Your task to perform on an android device: Clear the cart on amazon. Search for logitech g pro on amazon, select the first entry, and add it to the cart. Image 0: 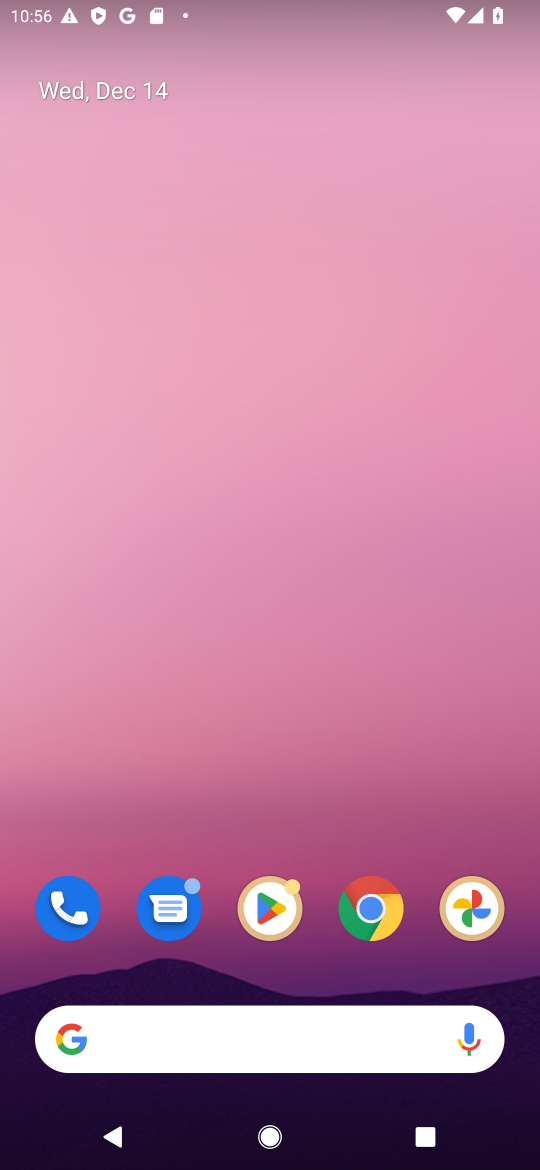
Step 0: click (369, 911)
Your task to perform on an android device: Clear the cart on amazon. Search for logitech g pro on amazon, select the first entry, and add it to the cart. Image 1: 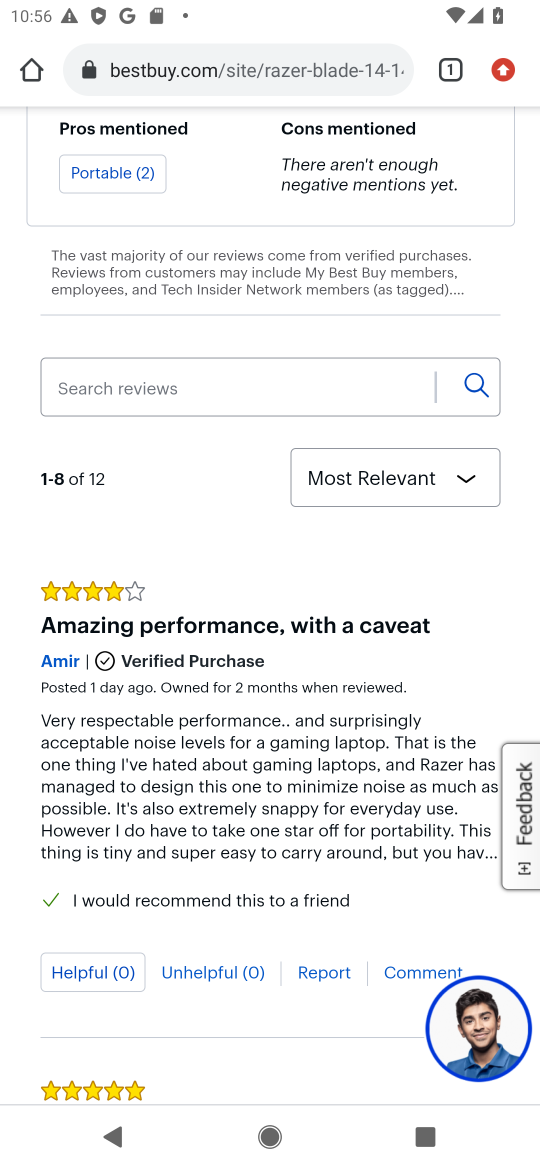
Step 1: click (285, 80)
Your task to perform on an android device: Clear the cart on amazon. Search for logitech g pro on amazon, select the first entry, and add it to the cart. Image 2: 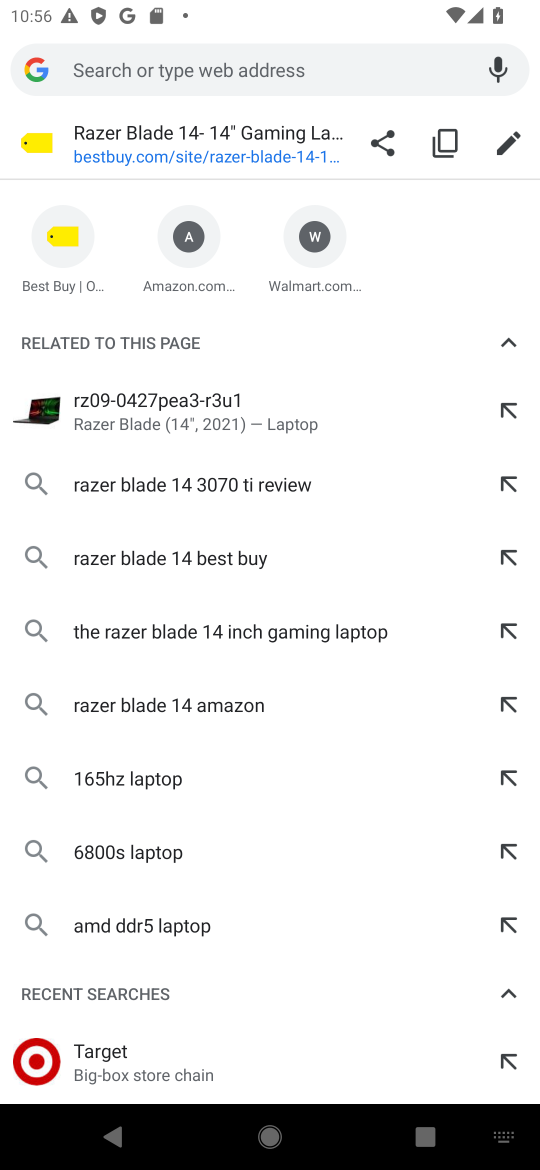
Step 2: type "amazon"
Your task to perform on an android device: Clear the cart on amazon. Search for logitech g pro on amazon, select the first entry, and add it to the cart. Image 3: 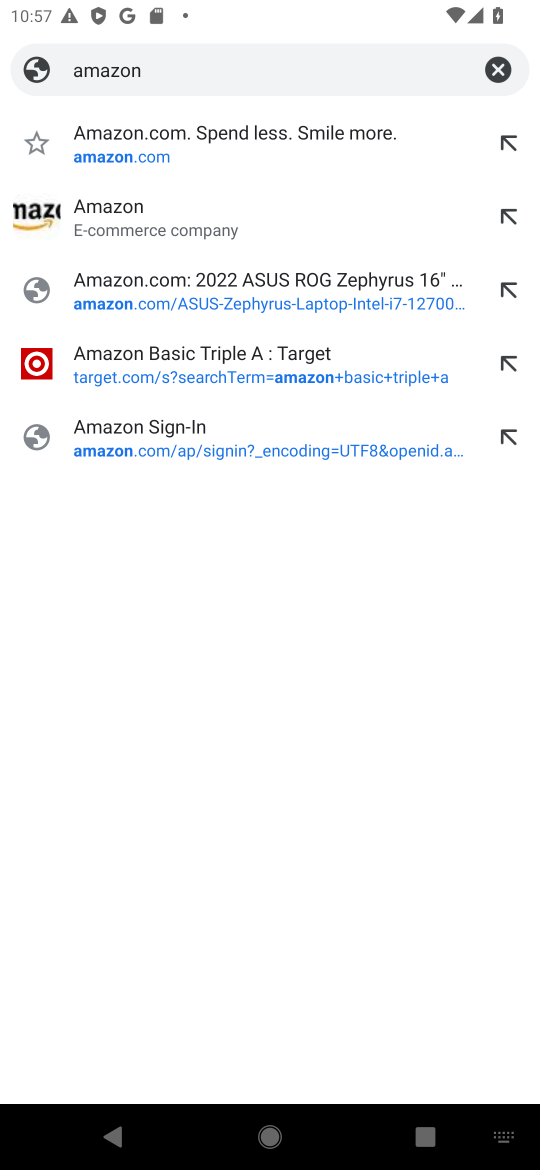
Step 3: click (270, 244)
Your task to perform on an android device: Clear the cart on amazon. Search for logitech g pro on amazon, select the first entry, and add it to the cart. Image 4: 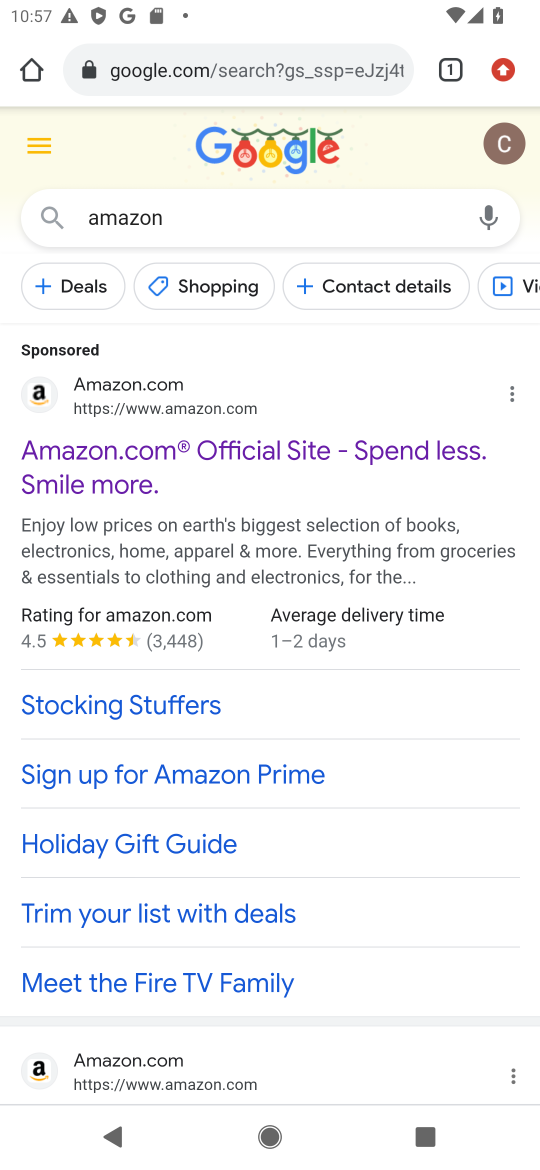
Step 4: click (110, 456)
Your task to perform on an android device: Clear the cart on amazon. Search for logitech g pro on amazon, select the first entry, and add it to the cart. Image 5: 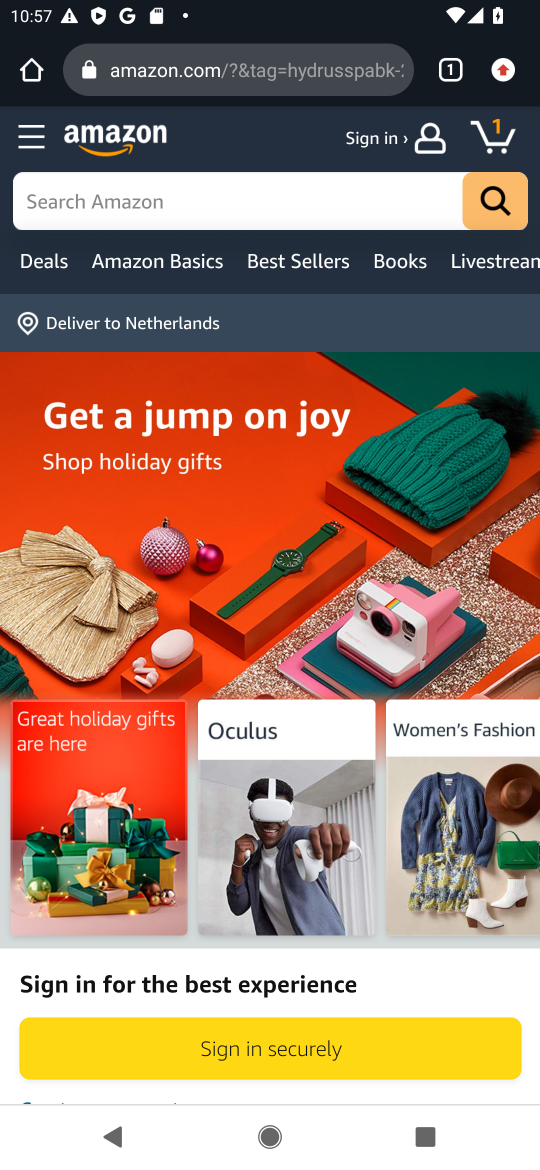
Step 5: click (208, 194)
Your task to perform on an android device: Clear the cart on amazon. Search for logitech g pro on amazon, select the first entry, and add it to the cart. Image 6: 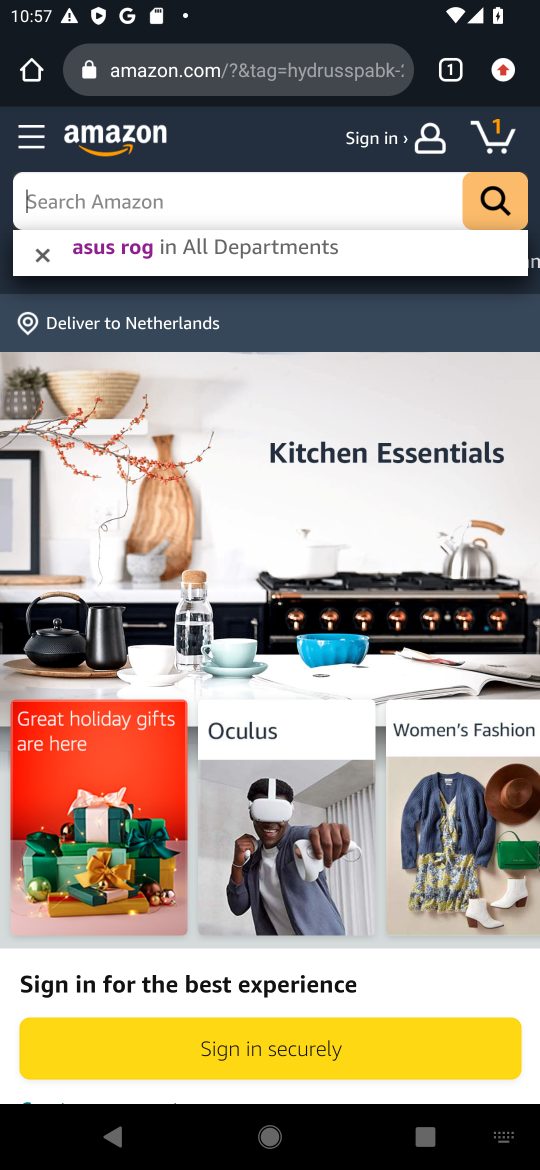
Step 6: type "logitech g pro"
Your task to perform on an android device: Clear the cart on amazon. Search for logitech g pro on amazon, select the first entry, and add it to the cart. Image 7: 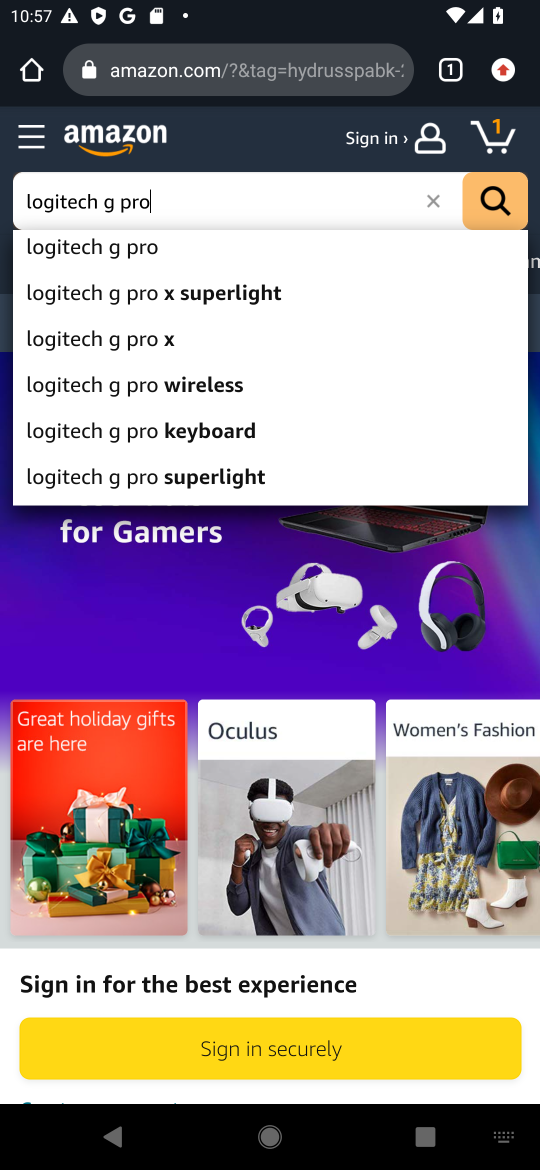
Step 7: click (498, 219)
Your task to perform on an android device: Clear the cart on amazon. Search for logitech g pro on amazon, select the first entry, and add it to the cart. Image 8: 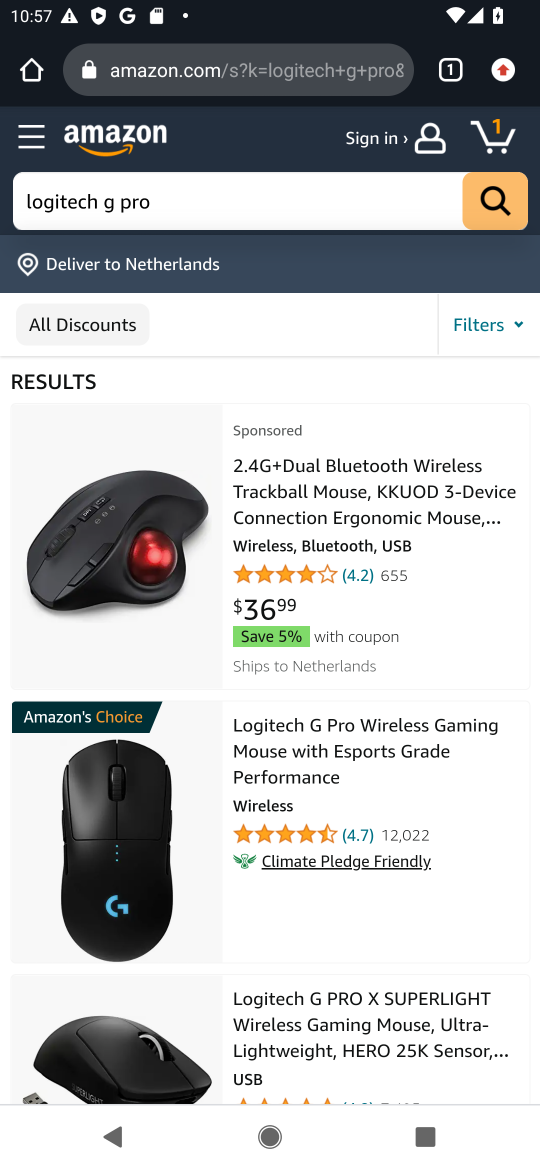
Step 8: click (274, 498)
Your task to perform on an android device: Clear the cart on amazon. Search for logitech g pro on amazon, select the first entry, and add it to the cart. Image 9: 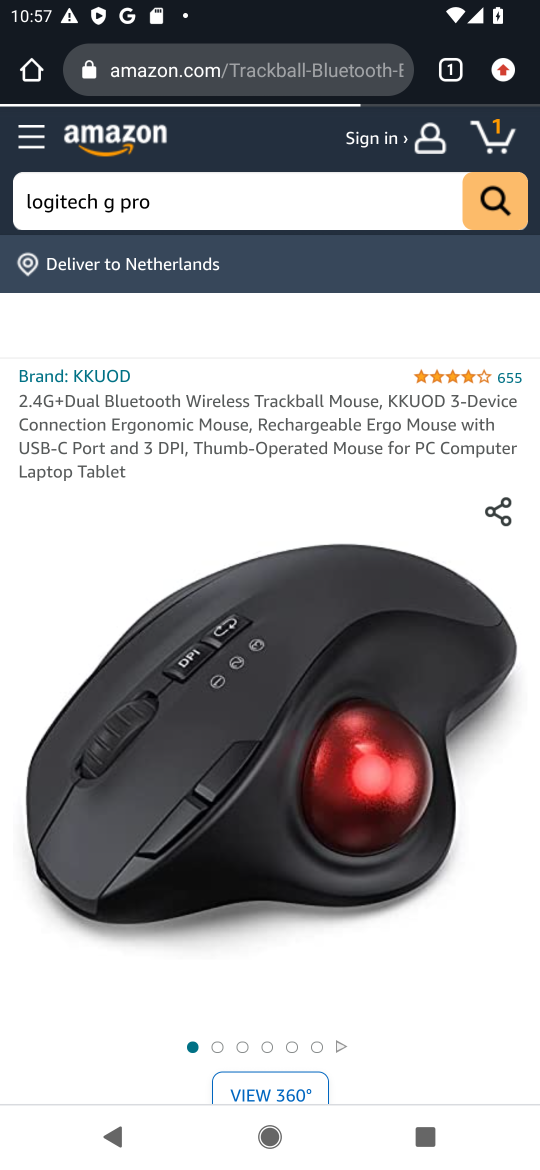
Step 9: drag from (176, 966) to (210, 406)
Your task to perform on an android device: Clear the cart on amazon. Search for logitech g pro on amazon, select the first entry, and add it to the cart. Image 10: 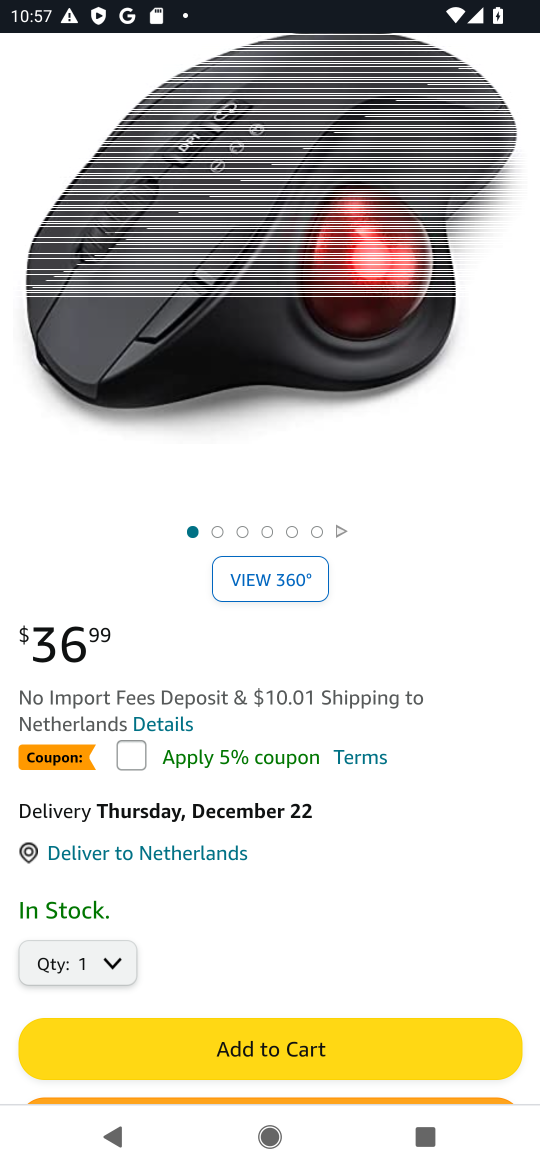
Step 10: click (271, 1040)
Your task to perform on an android device: Clear the cart on amazon. Search for logitech g pro on amazon, select the first entry, and add it to the cart. Image 11: 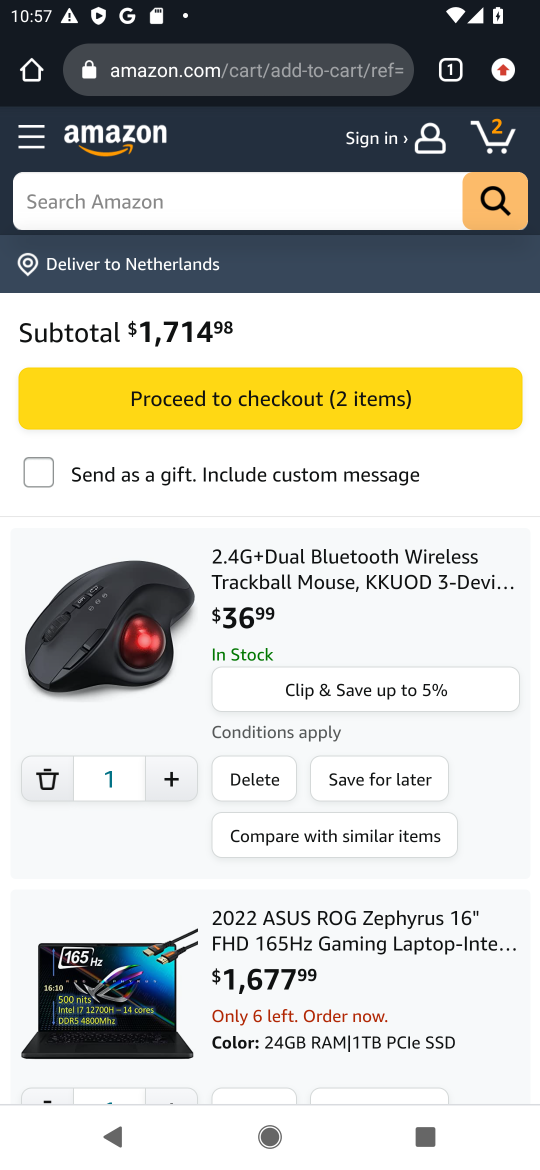
Step 11: task complete